Your task to perform on an android device: turn pop-ups on in chrome Image 0: 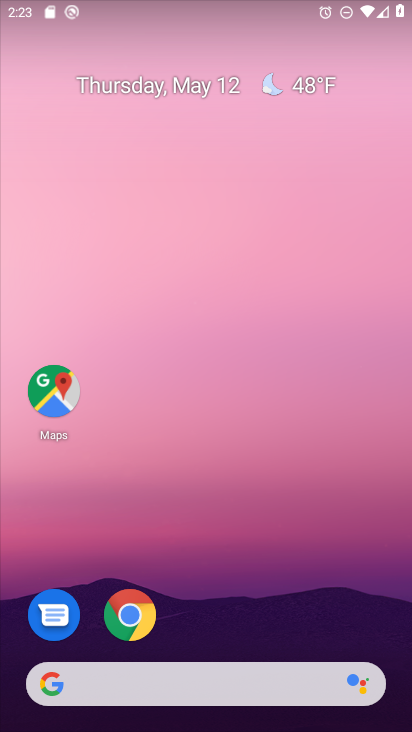
Step 0: drag from (204, 663) to (291, 2)
Your task to perform on an android device: turn pop-ups on in chrome Image 1: 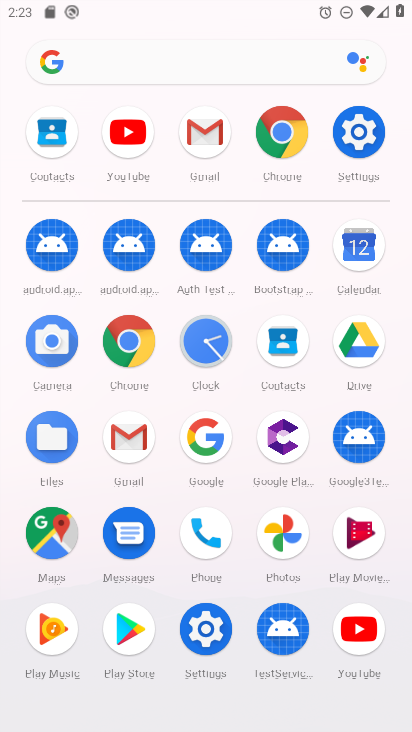
Step 1: click (117, 333)
Your task to perform on an android device: turn pop-ups on in chrome Image 2: 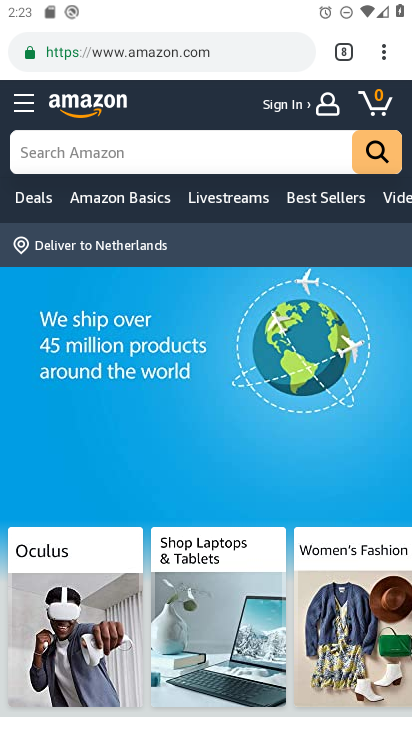
Step 2: click (387, 48)
Your task to perform on an android device: turn pop-ups on in chrome Image 3: 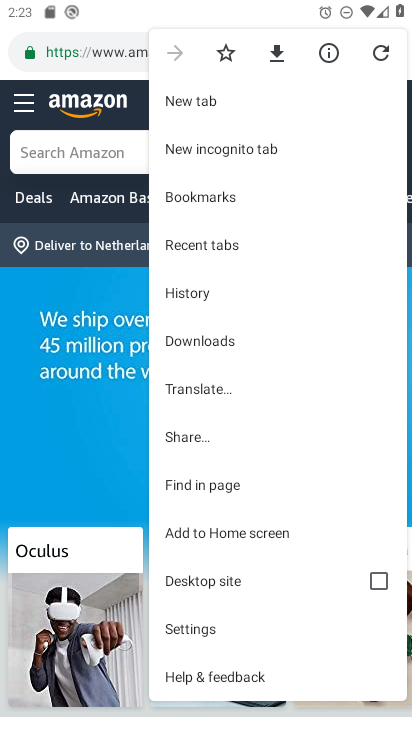
Step 3: click (224, 632)
Your task to perform on an android device: turn pop-ups on in chrome Image 4: 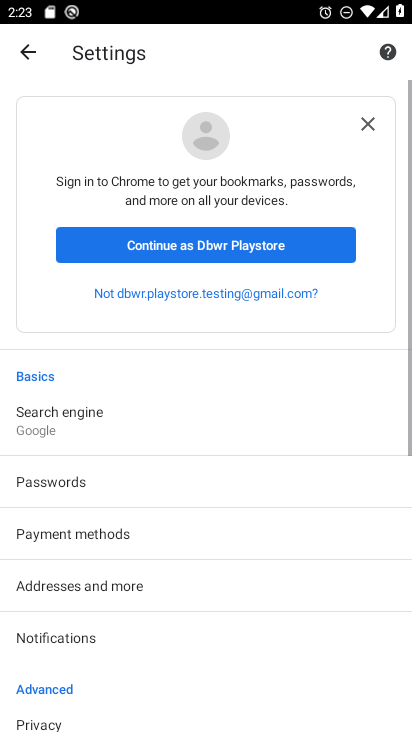
Step 4: drag from (181, 619) to (212, 63)
Your task to perform on an android device: turn pop-ups on in chrome Image 5: 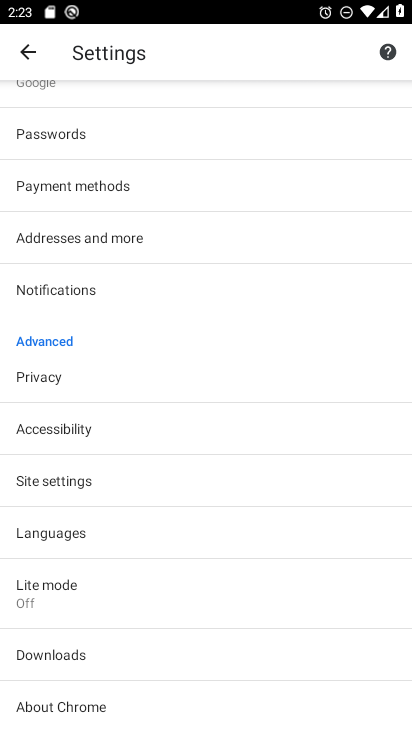
Step 5: click (132, 474)
Your task to perform on an android device: turn pop-ups on in chrome Image 6: 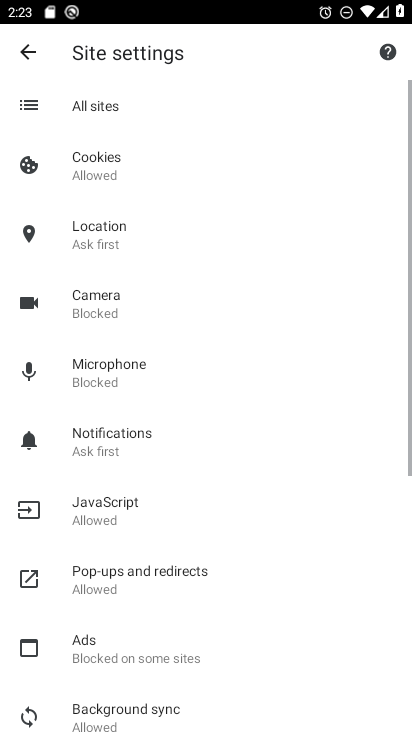
Step 6: drag from (251, 659) to (229, 374)
Your task to perform on an android device: turn pop-ups on in chrome Image 7: 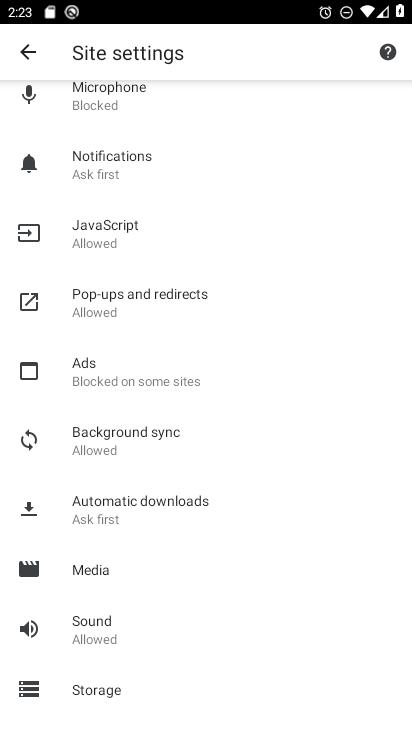
Step 7: click (173, 295)
Your task to perform on an android device: turn pop-ups on in chrome Image 8: 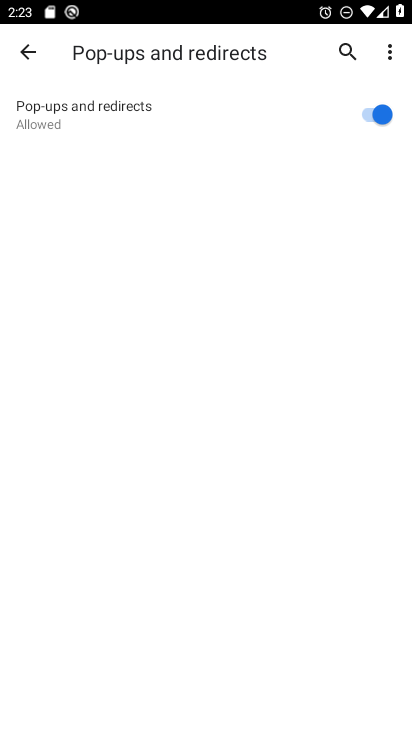
Step 8: task complete